Your task to perform on an android device: Open sound settings Image 0: 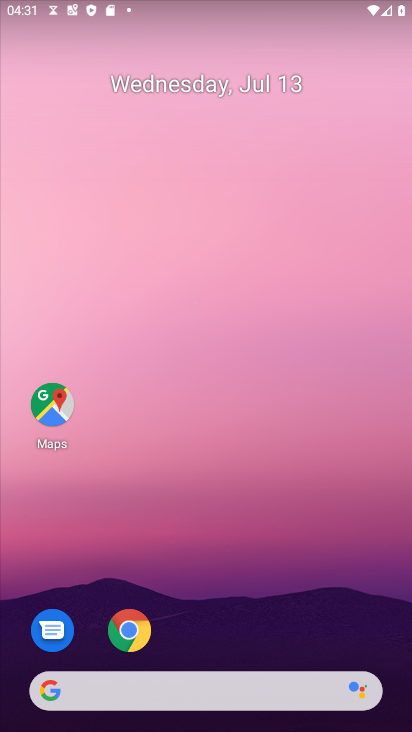
Step 0: drag from (221, 666) to (225, 0)
Your task to perform on an android device: Open sound settings Image 1: 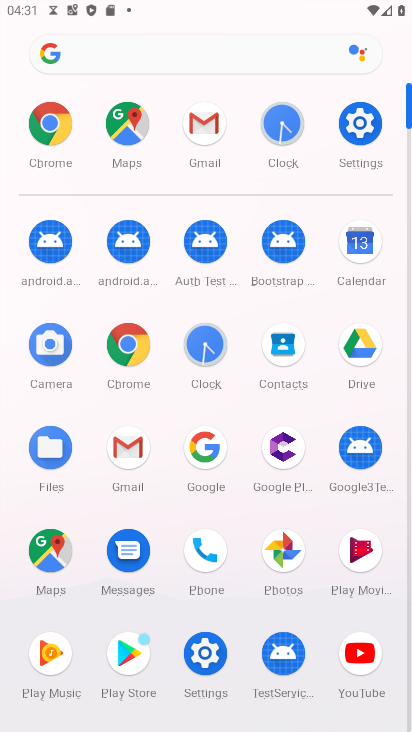
Step 1: click (366, 117)
Your task to perform on an android device: Open sound settings Image 2: 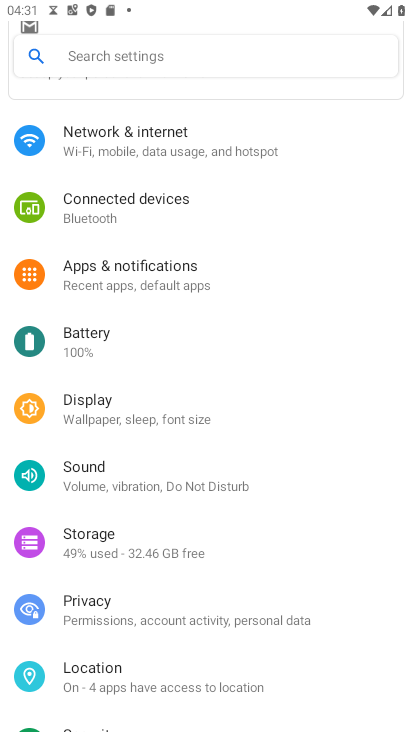
Step 2: click (98, 475)
Your task to perform on an android device: Open sound settings Image 3: 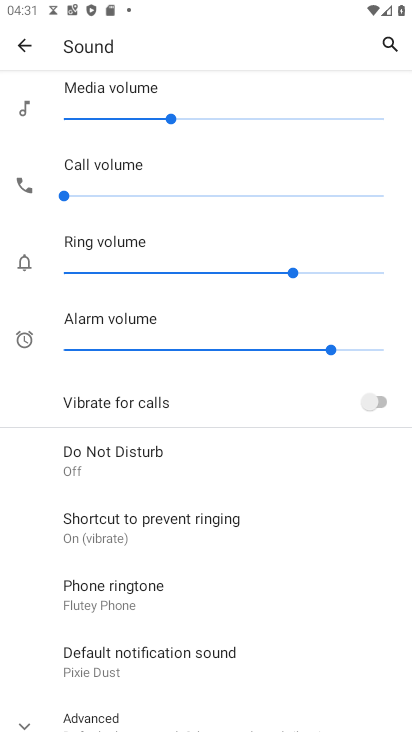
Step 3: task complete